Your task to perform on an android device: delete browsing data in the chrome app Image 0: 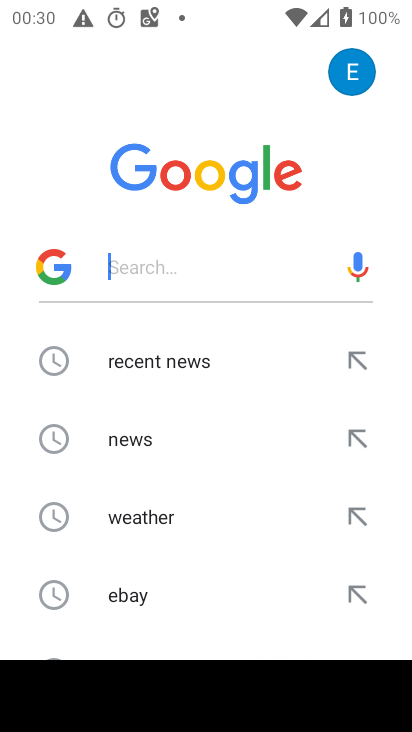
Step 0: press back button
Your task to perform on an android device: delete browsing data in the chrome app Image 1: 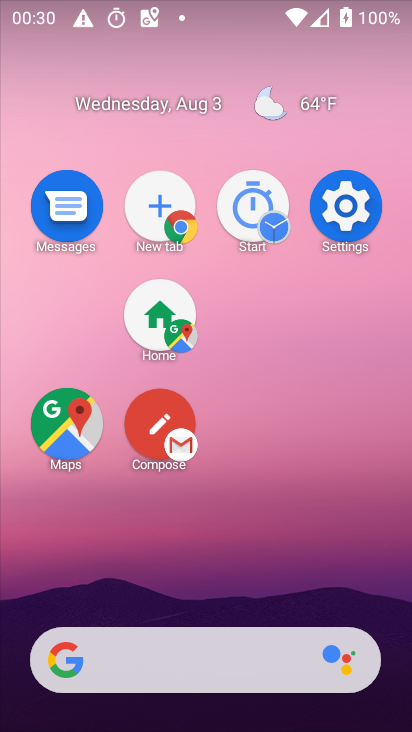
Step 1: drag from (239, 589) to (197, 262)
Your task to perform on an android device: delete browsing data in the chrome app Image 2: 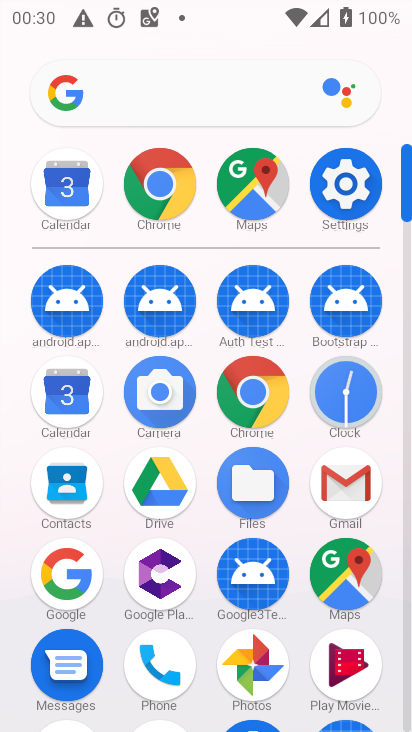
Step 2: click (164, 184)
Your task to perform on an android device: delete browsing data in the chrome app Image 3: 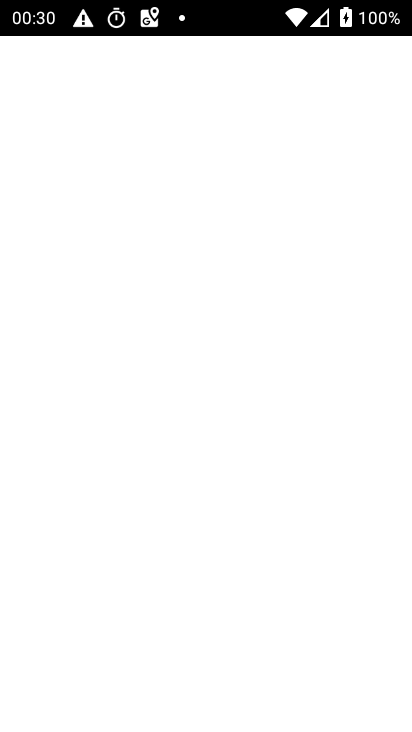
Step 3: click (162, 191)
Your task to perform on an android device: delete browsing data in the chrome app Image 4: 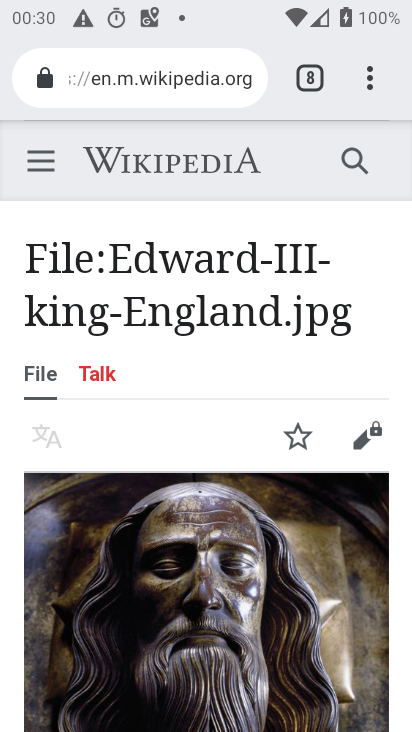
Step 4: drag from (361, 81) to (66, 442)
Your task to perform on an android device: delete browsing data in the chrome app Image 5: 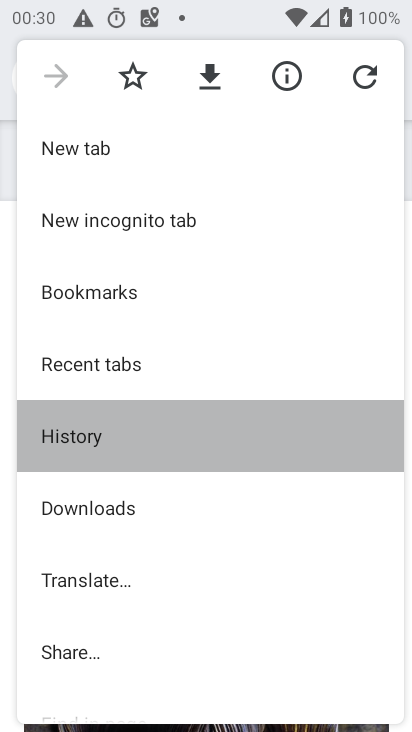
Step 5: click (67, 447)
Your task to perform on an android device: delete browsing data in the chrome app Image 6: 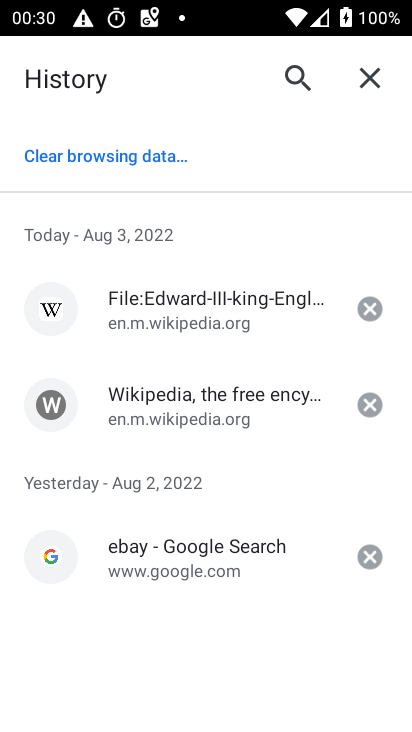
Step 6: click (109, 150)
Your task to perform on an android device: delete browsing data in the chrome app Image 7: 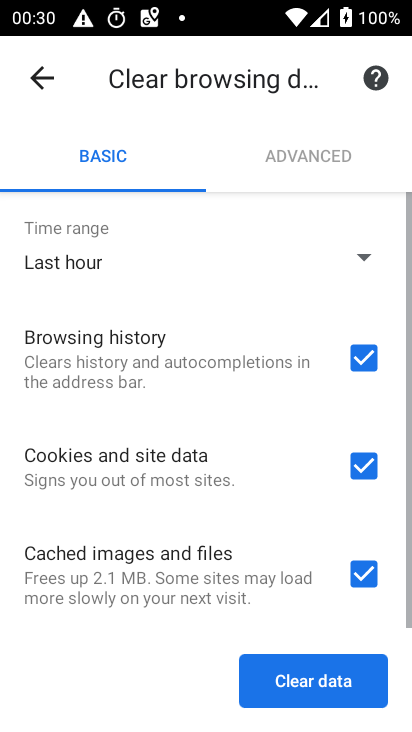
Step 7: click (317, 669)
Your task to perform on an android device: delete browsing data in the chrome app Image 8: 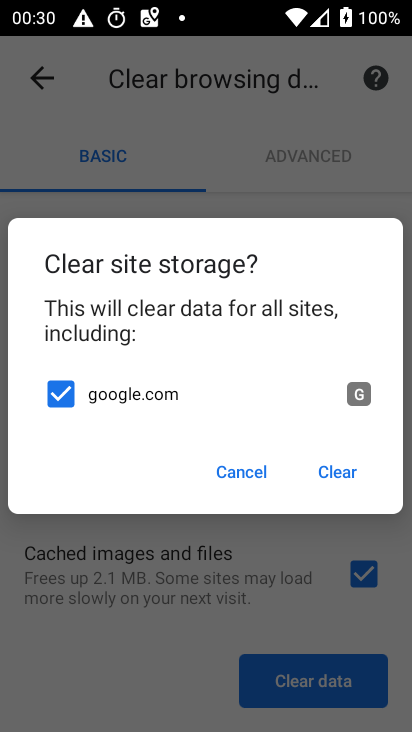
Step 8: click (333, 463)
Your task to perform on an android device: delete browsing data in the chrome app Image 9: 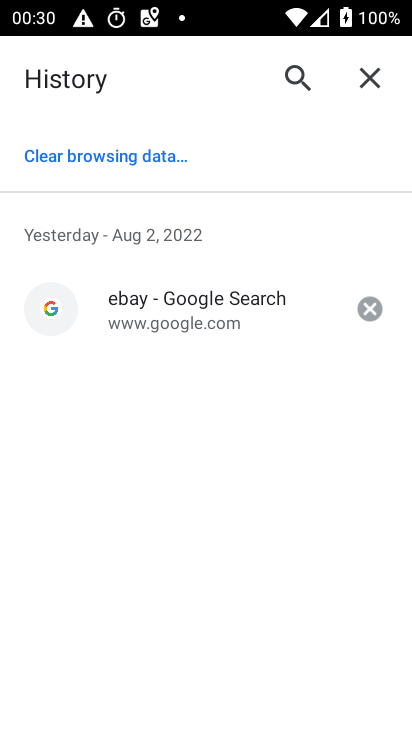
Step 9: click (368, 307)
Your task to perform on an android device: delete browsing data in the chrome app Image 10: 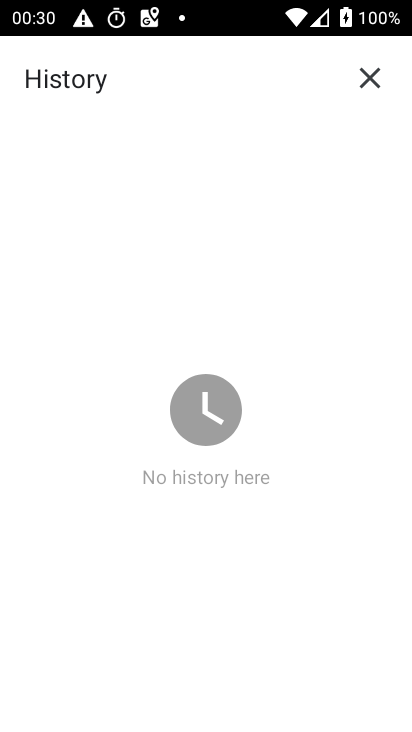
Step 10: task complete